Your task to perform on an android device: What's the weather going to be this weekend? Image 0: 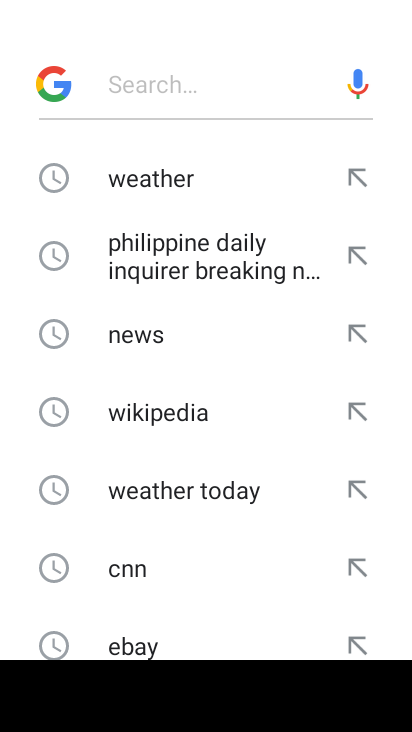
Step 0: press home button
Your task to perform on an android device: What's the weather going to be this weekend? Image 1: 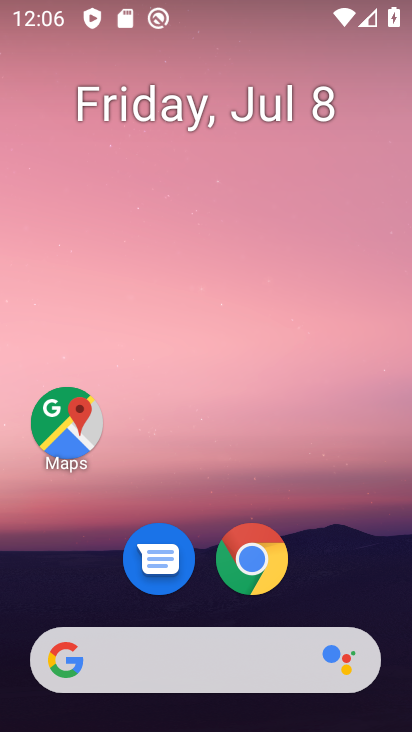
Step 1: drag from (216, 615) to (191, 53)
Your task to perform on an android device: What's the weather going to be this weekend? Image 2: 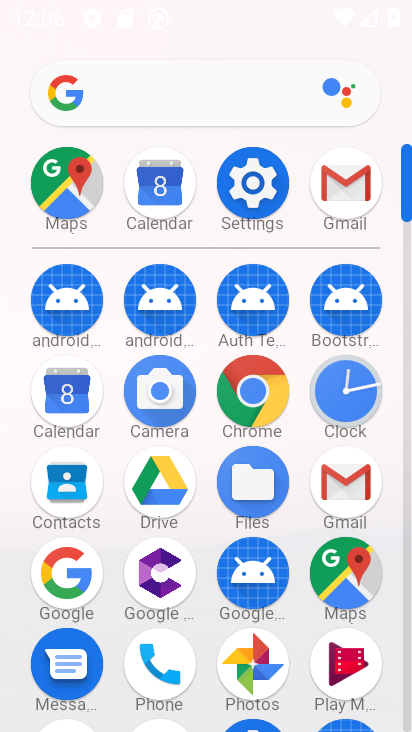
Step 2: click (74, 578)
Your task to perform on an android device: What's the weather going to be this weekend? Image 3: 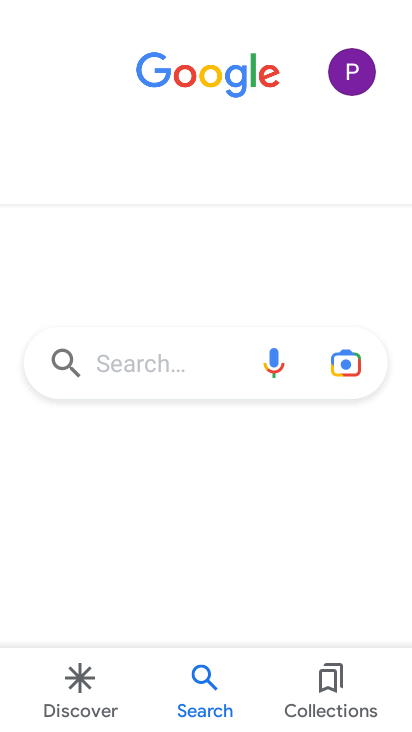
Step 3: click (106, 386)
Your task to perform on an android device: What's the weather going to be this weekend? Image 4: 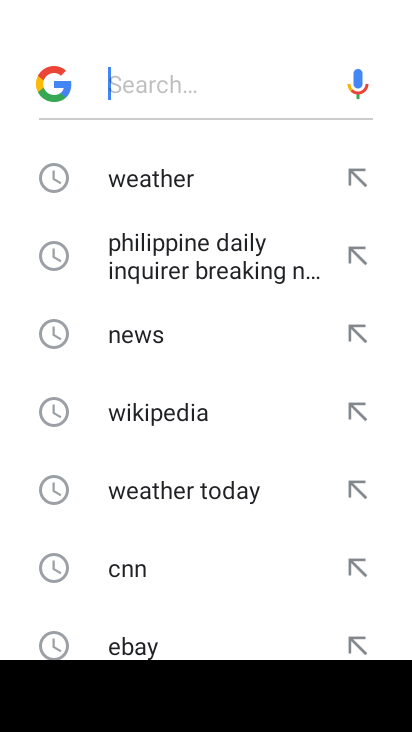
Step 4: click (154, 195)
Your task to perform on an android device: What's the weather going to be this weekend? Image 5: 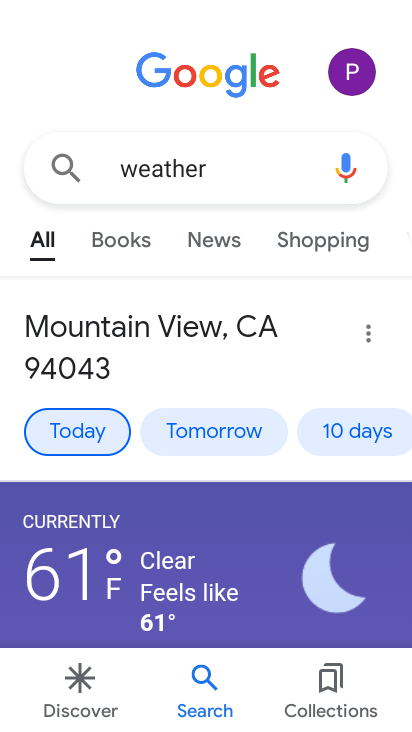
Step 5: click (329, 433)
Your task to perform on an android device: What's the weather going to be this weekend? Image 6: 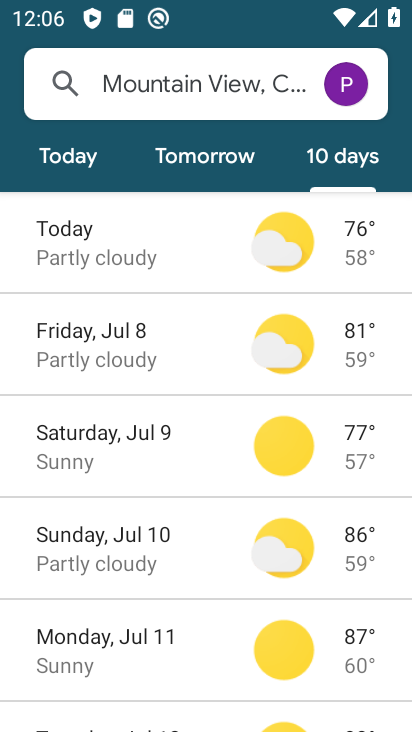
Step 6: task complete